Your task to perform on an android device: Do I have any events this weekend? Image 0: 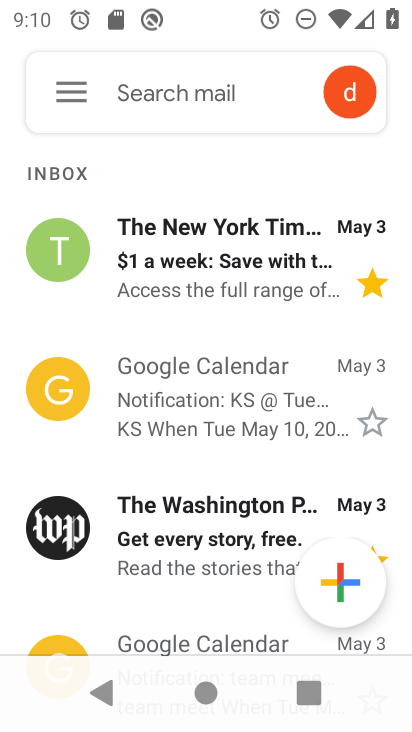
Step 0: press home button
Your task to perform on an android device: Do I have any events this weekend? Image 1: 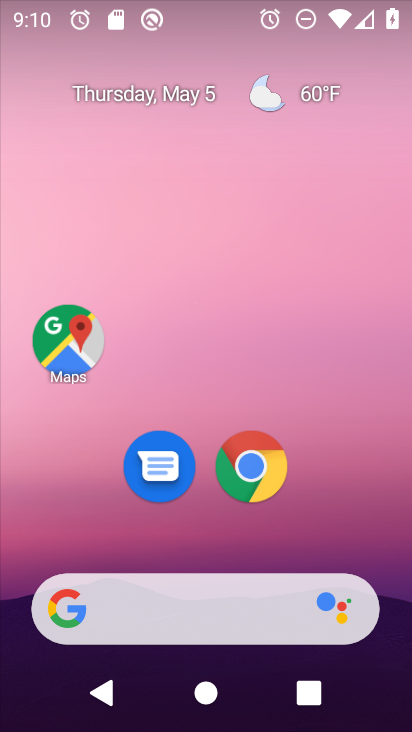
Step 1: drag from (219, 393) to (183, 3)
Your task to perform on an android device: Do I have any events this weekend? Image 2: 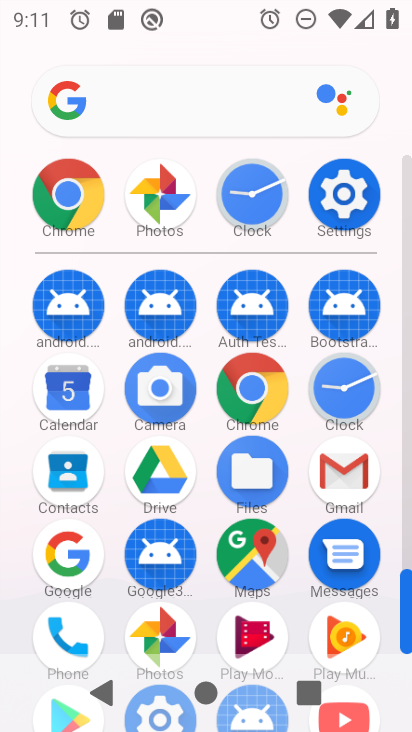
Step 2: click (69, 400)
Your task to perform on an android device: Do I have any events this weekend? Image 3: 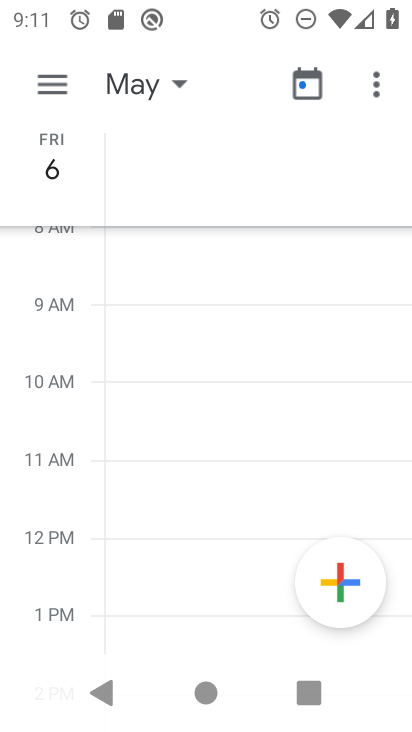
Step 3: click (54, 87)
Your task to perform on an android device: Do I have any events this weekend? Image 4: 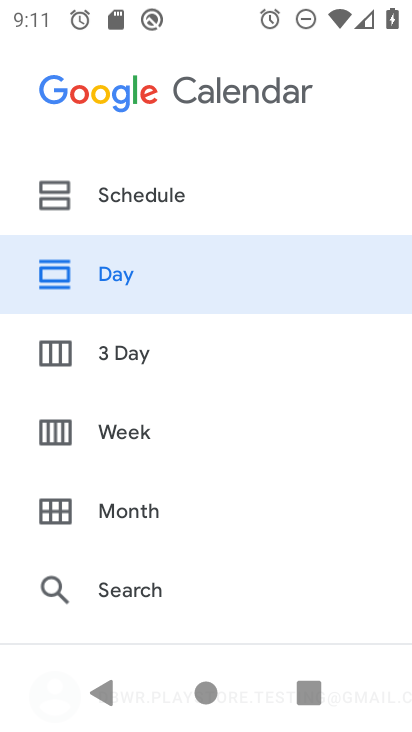
Step 4: click (104, 428)
Your task to perform on an android device: Do I have any events this weekend? Image 5: 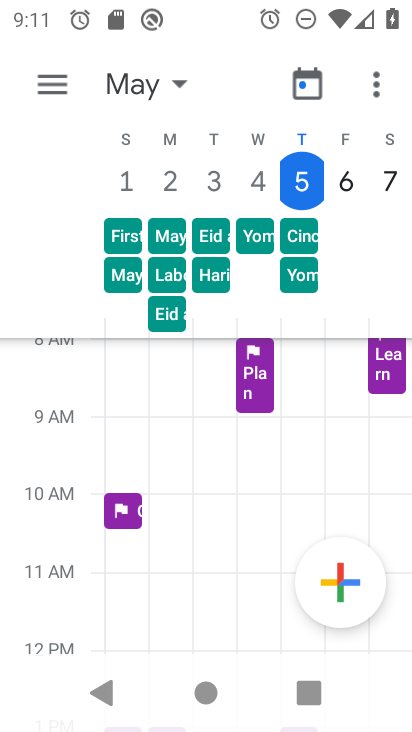
Step 5: task complete